Your task to perform on an android device: clear all cookies in the chrome app Image 0: 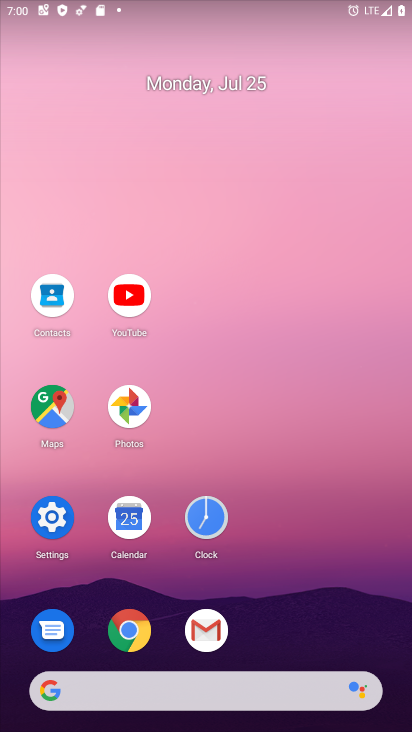
Step 0: click (126, 626)
Your task to perform on an android device: clear all cookies in the chrome app Image 1: 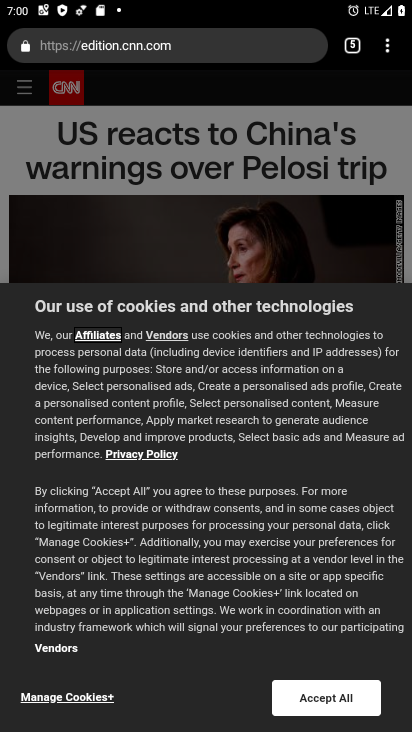
Step 1: click (392, 46)
Your task to perform on an android device: clear all cookies in the chrome app Image 2: 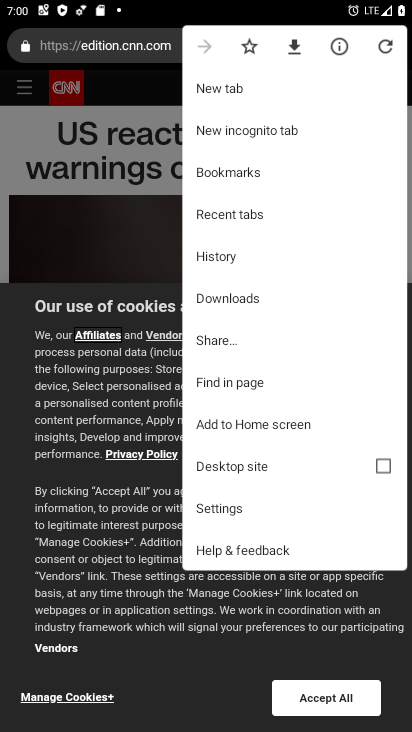
Step 2: click (227, 253)
Your task to perform on an android device: clear all cookies in the chrome app Image 3: 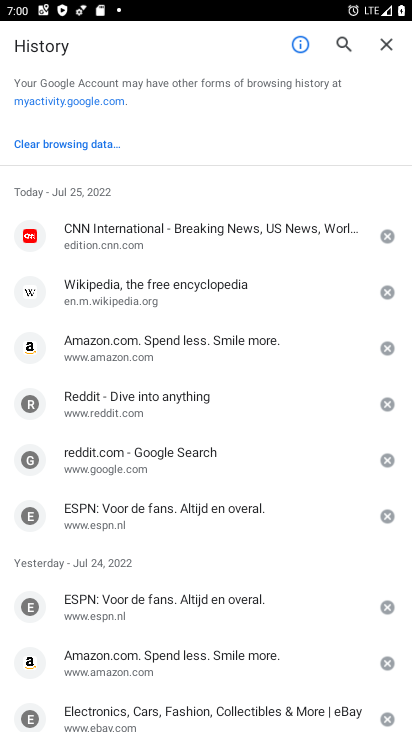
Step 3: click (64, 144)
Your task to perform on an android device: clear all cookies in the chrome app Image 4: 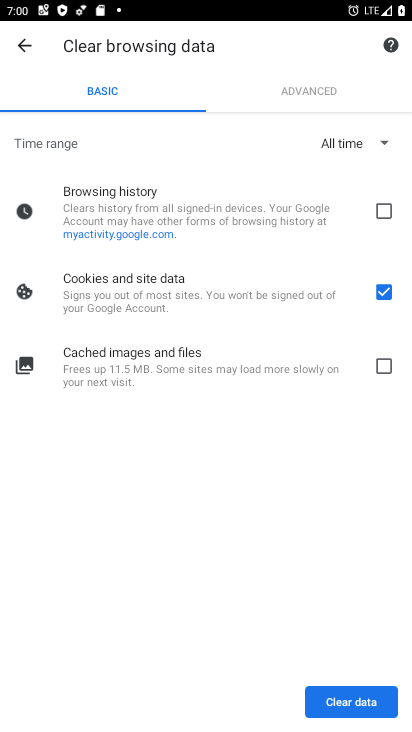
Step 4: click (342, 701)
Your task to perform on an android device: clear all cookies in the chrome app Image 5: 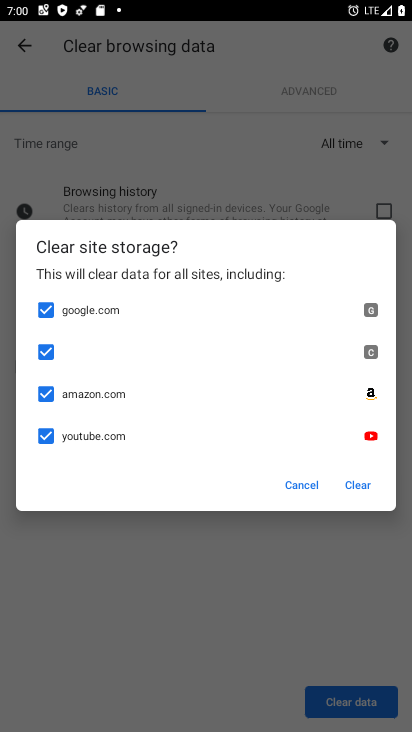
Step 5: click (352, 482)
Your task to perform on an android device: clear all cookies in the chrome app Image 6: 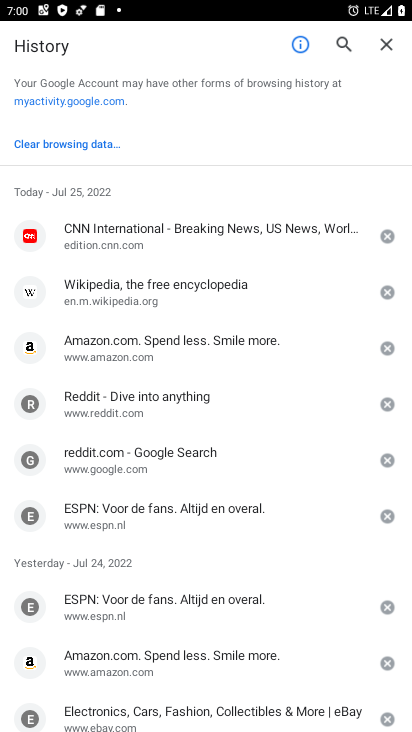
Step 6: task complete